Your task to perform on an android device: Open Youtube and go to "Your channel" Image 0: 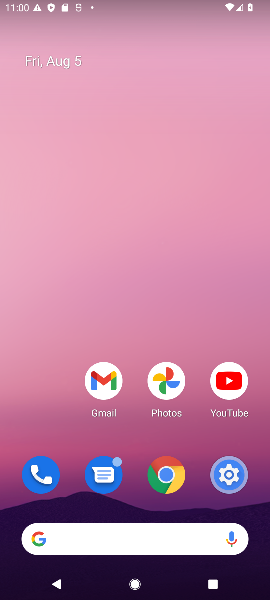
Step 0: drag from (143, 488) to (126, 15)
Your task to perform on an android device: Open Youtube and go to "Your channel" Image 1: 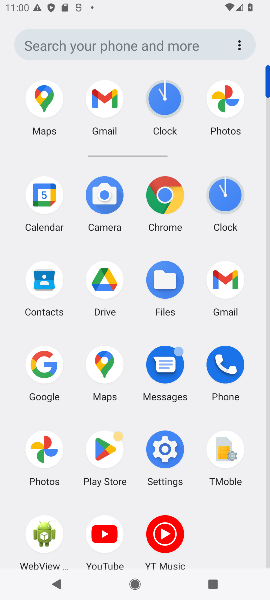
Step 1: click (104, 540)
Your task to perform on an android device: Open Youtube and go to "Your channel" Image 2: 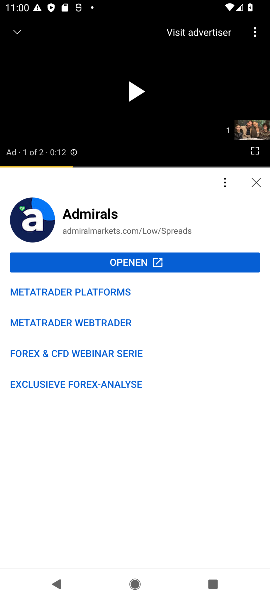
Step 2: click (17, 33)
Your task to perform on an android device: Open Youtube and go to "Your channel" Image 3: 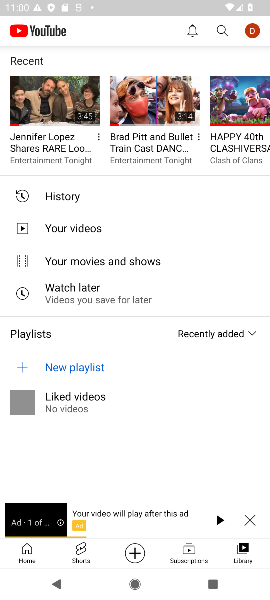
Step 3: click (252, 521)
Your task to perform on an android device: Open Youtube and go to "Your channel" Image 4: 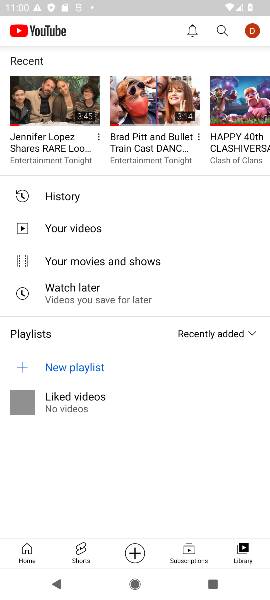
Step 4: click (20, 554)
Your task to perform on an android device: Open Youtube and go to "Your channel" Image 5: 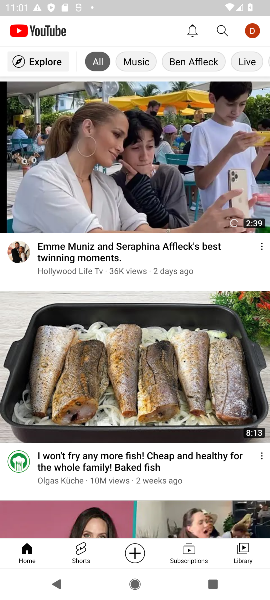
Step 5: click (254, 26)
Your task to perform on an android device: Open Youtube and go to "Your channel" Image 6: 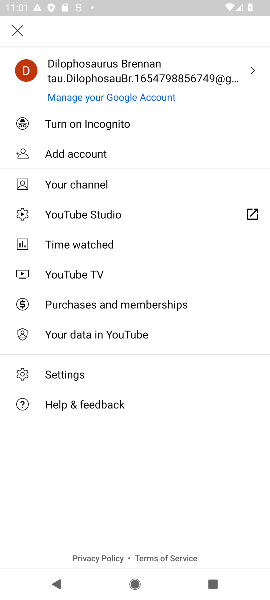
Step 6: click (91, 187)
Your task to perform on an android device: Open Youtube and go to "Your channel" Image 7: 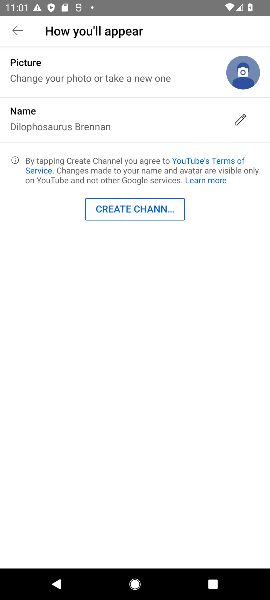
Step 7: task complete